Your task to perform on an android device: delete the emails in spam in the gmail app Image 0: 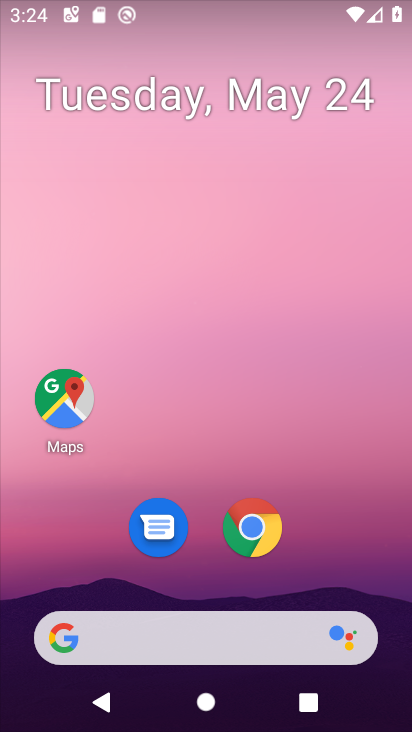
Step 0: drag from (359, 436) to (407, 7)
Your task to perform on an android device: delete the emails in spam in the gmail app Image 1: 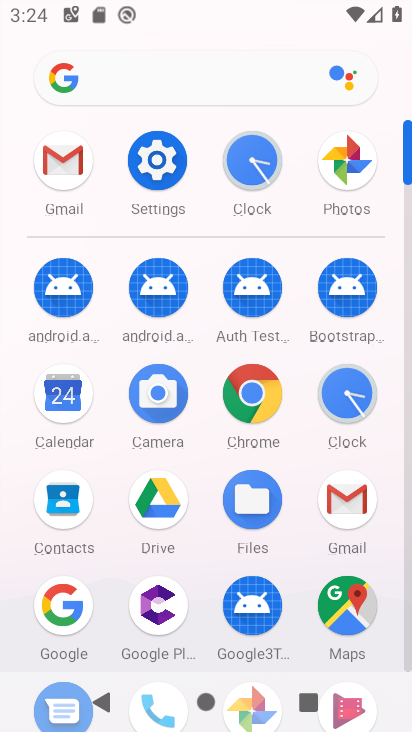
Step 1: click (54, 168)
Your task to perform on an android device: delete the emails in spam in the gmail app Image 2: 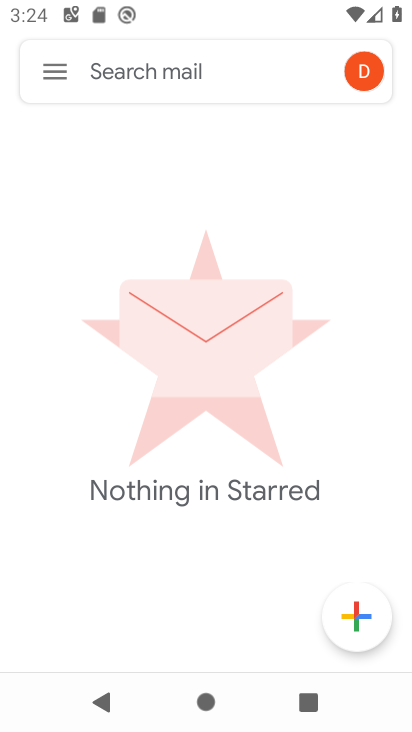
Step 2: click (56, 73)
Your task to perform on an android device: delete the emails in spam in the gmail app Image 3: 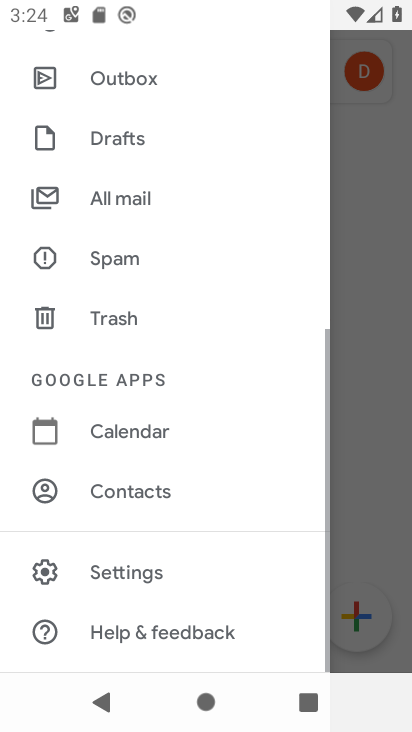
Step 3: click (109, 254)
Your task to perform on an android device: delete the emails in spam in the gmail app Image 4: 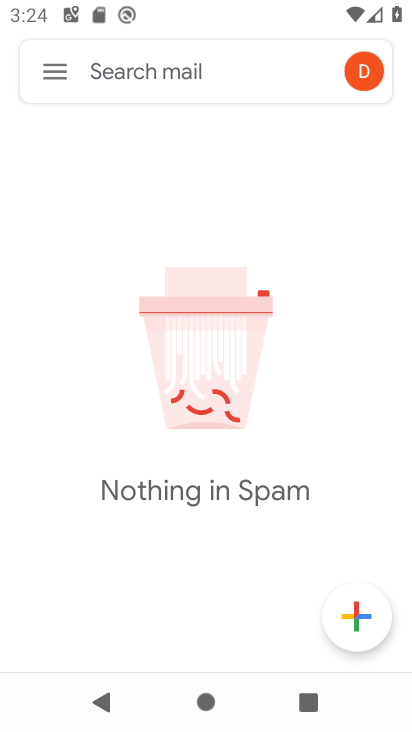
Step 4: task complete